Your task to perform on an android device: Go to Yahoo.com Image 0: 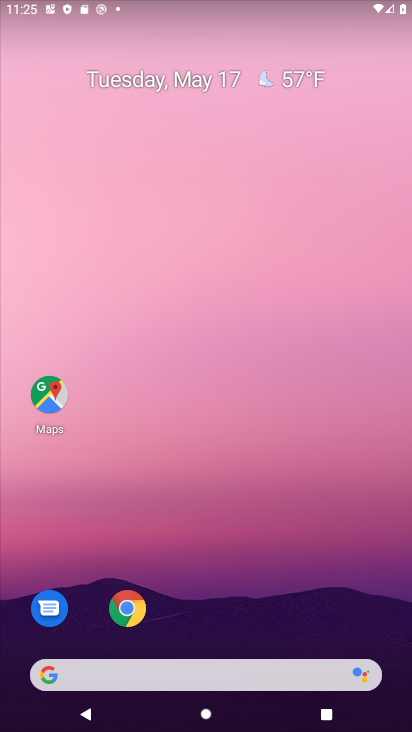
Step 0: click (123, 608)
Your task to perform on an android device: Go to Yahoo.com Image 1: 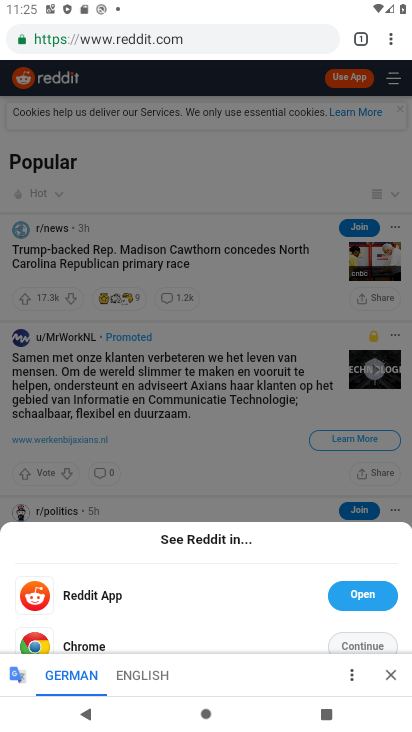
Step 1: click (195, 42)
Your task to perform on an android device: Go to Yahoo.com Image 2: 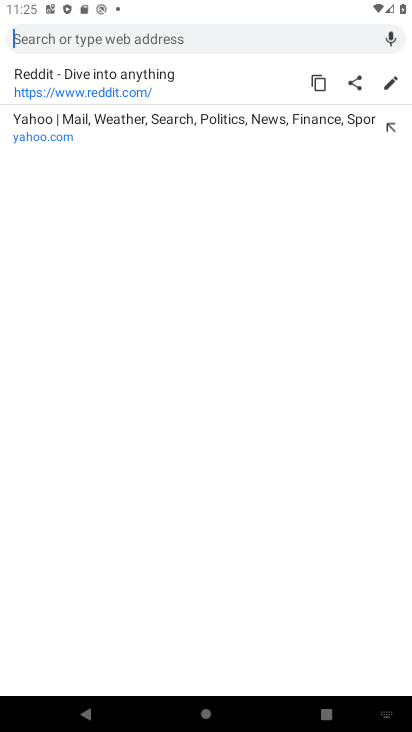
Step 2: type "Yahoo.com"
Your task to perform on an android device: Go to Yahoo.com Image 3: 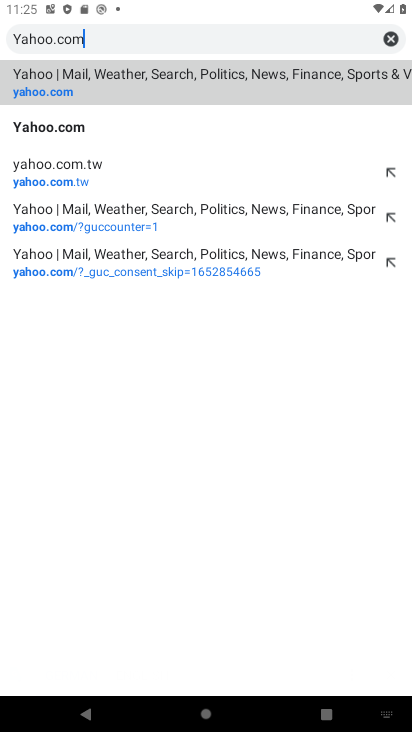
Step 3: click (78, 74)
Your task to perform on an android device: Go to Yahoo.com Image 4: 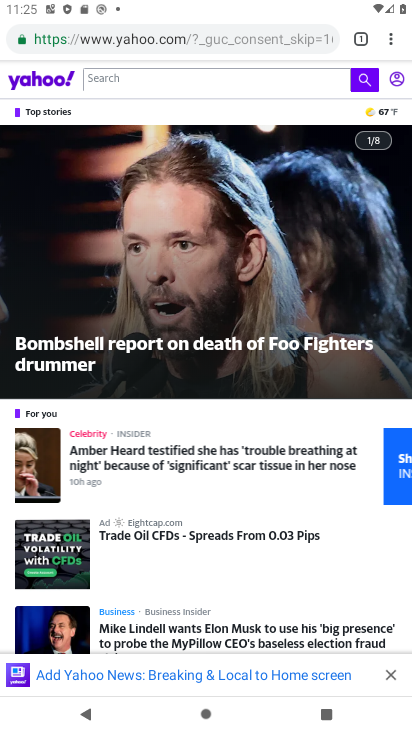
Step 4: task complete